Your task to perform on an android device: toggle airplane mode Image 0: 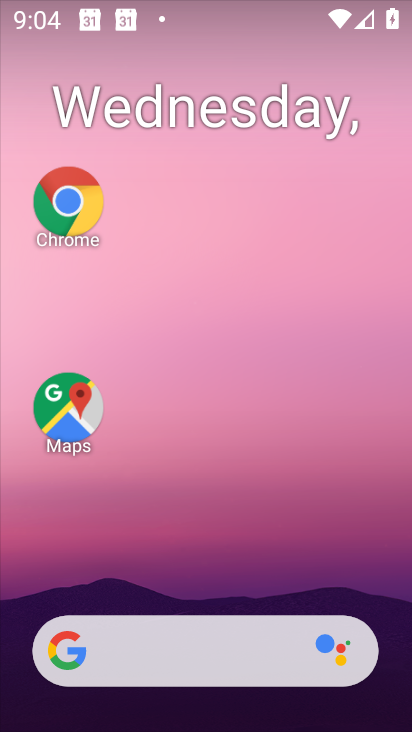
Step 0: drag from (189, 575) to (124, 147)
Your task to perform on an android device: toggle airplane mode Image 1: 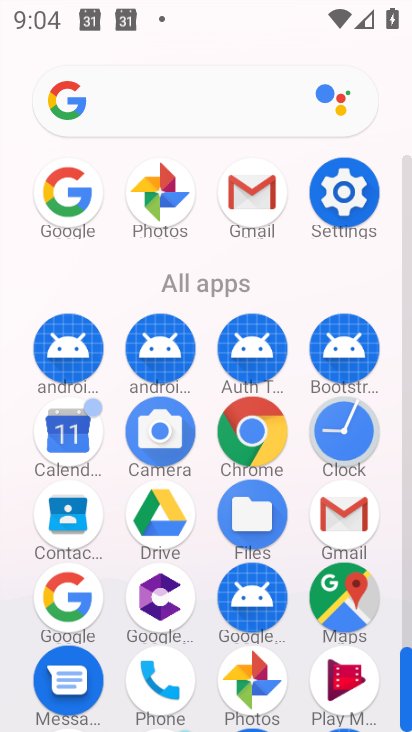
Step 1: click (355, 178)
Your task to perform on an android device: toggle airplane mode Image 2: 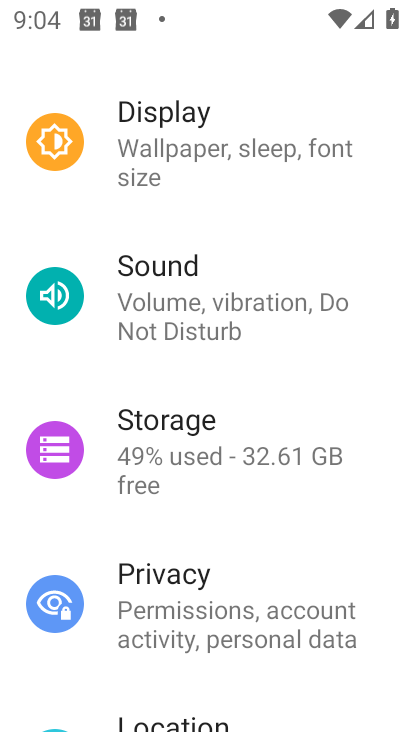
Step 2: drag from (328, 588) to (207, 7)
Your task to perform on an android device: toggle airplane mode Image 3: 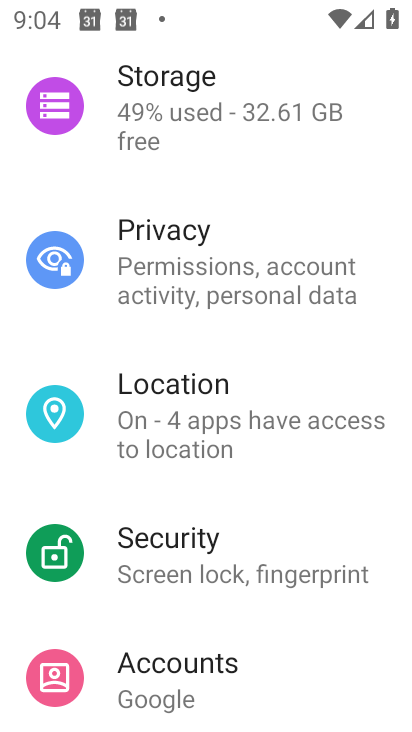
Step 3: drag from (280, 227) to (288, 554)
Your task to perform on an android device: toggle airplane mode Image 4: 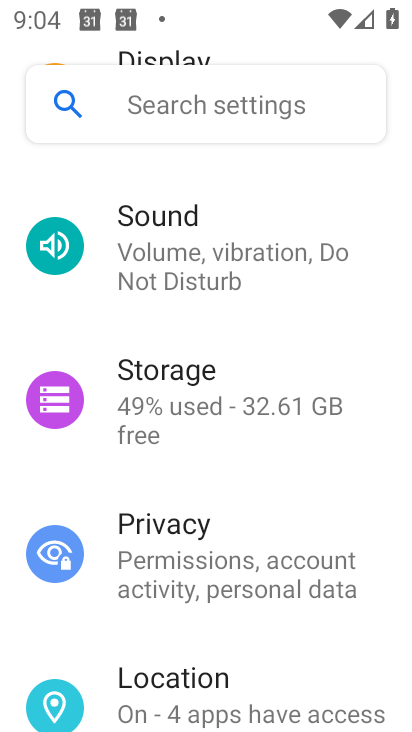
Step 4: drag from (285, 353) to (265, 727)
Your task to perform on an android device: toggle airplane mode Image 5: 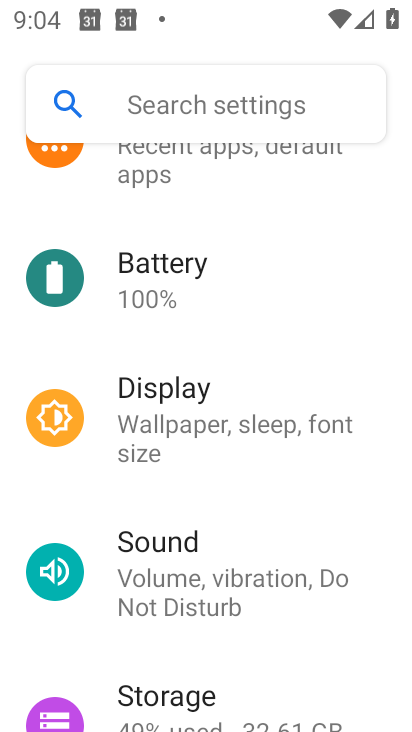
Step 5: drag from (275, 224) to (259, 614)
Your task to perform on an android device: toggle airplane mode Image 6: 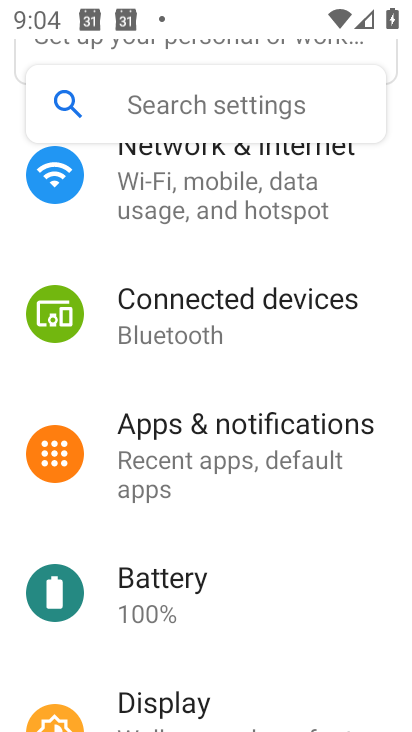
Step 6: click (250, 169)
Your task to perform on an android device: toggle airplane mode Image 7: 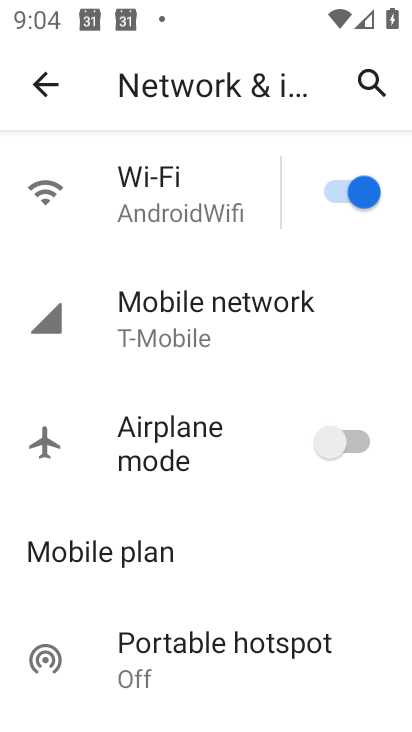
Step 7: click (180, 456)
Your task to perform on an android device: toggle airplane mode Image 8: 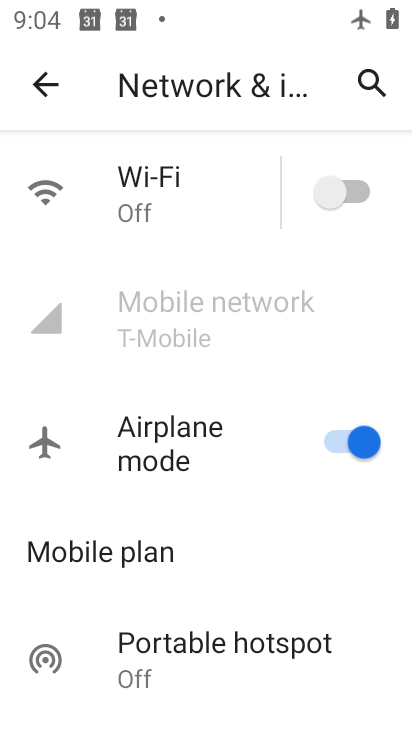
Step 8: task complete